Your task to perform on an android device: check battery use Image 0: 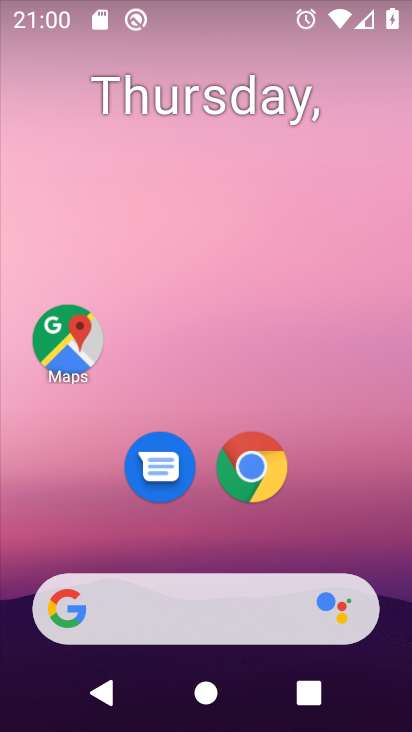
Step 0: drag from (341, 519) to (316, 172)
Your task to perform on an android device: check battery use Image 1: 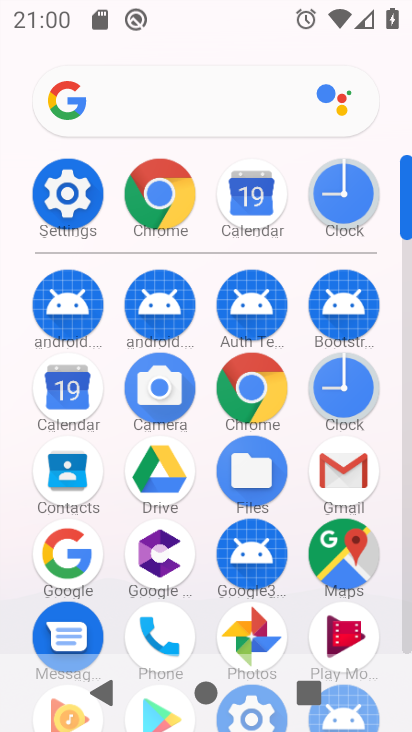
Step 1: click (61, 184)
Your task to perform on an android device: check battery use Image 2: 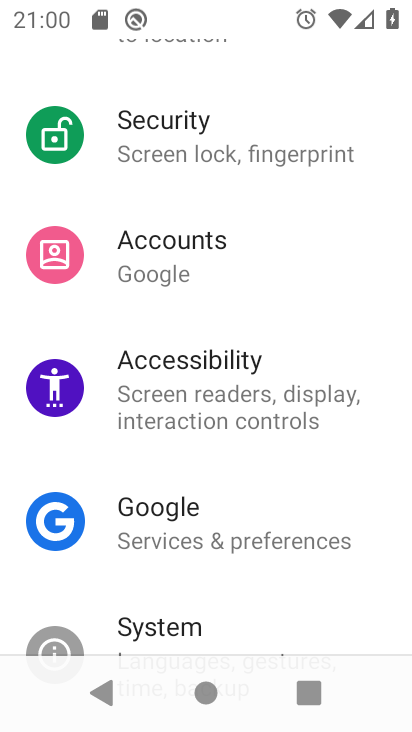
Step 2: drag from (213, 146) to (215, 322)
Your task to perform on an android device: check battery use Image 3: 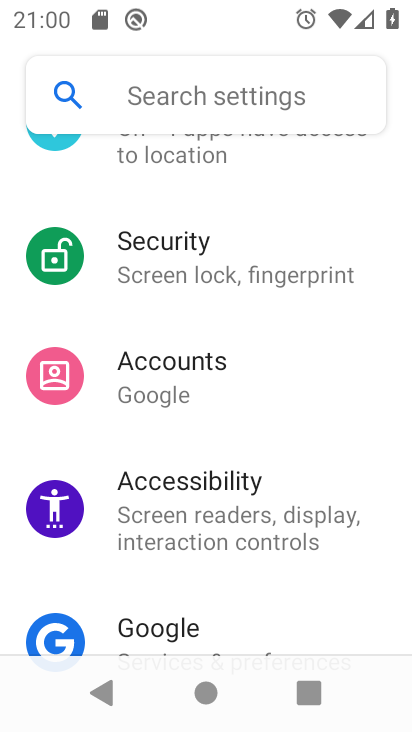
Step 3: drag from (238, 183) to (228, 538)
Your task to perform on an android device: check battery use Image 4: 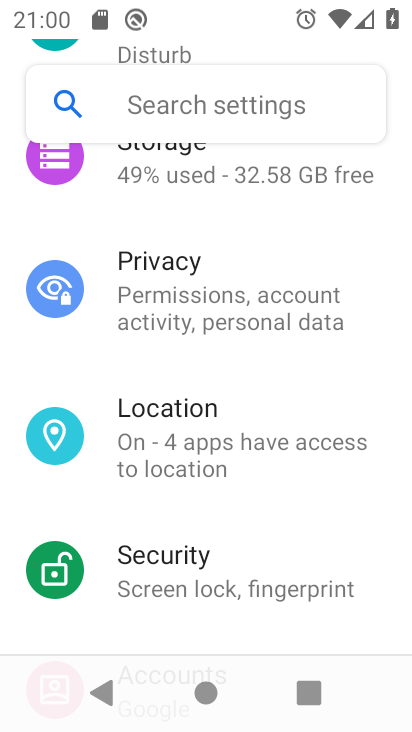
Step 4: drag from (249, 186) to (260, 634)
Your task to perform on an android device: check battery use Image 5: 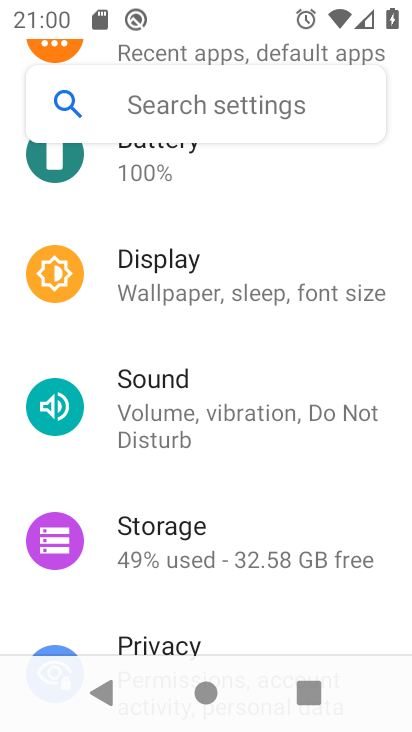
Step 5: drag from (197, 173) to (198, 412)
Your task to perform on an android device: check battery use Image 6: 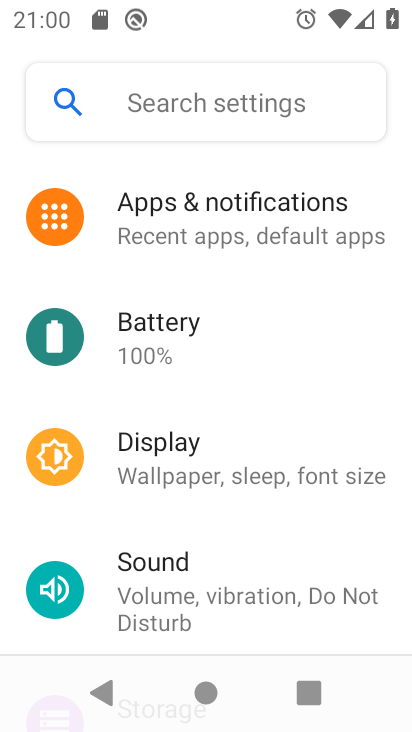
Step 6: click (164, 332)
Your task to perform on an android device: check battery use Image 7: 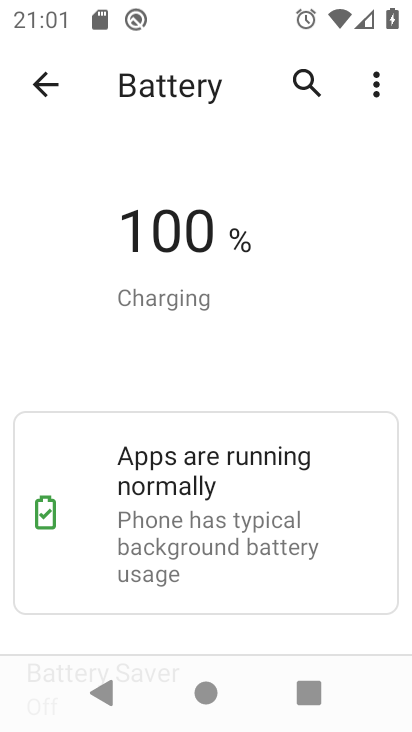
Step 7: task complete